Your task to perform on an android device: Open network settings Image 0: 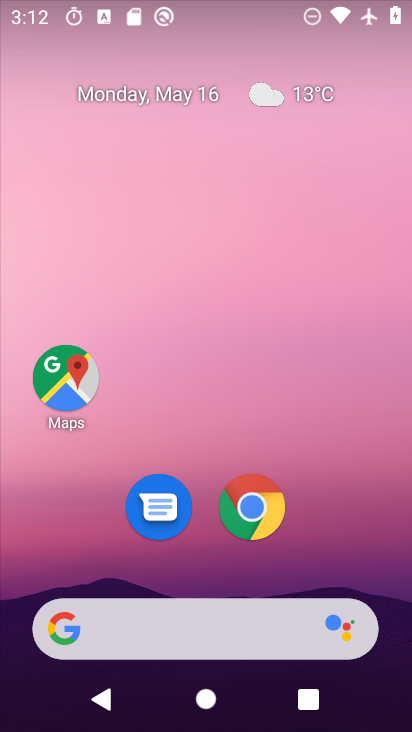
Step 0: drag from (224, 590) to (269, 235)
Your task to perform on an android device: Open network settings Image 1: 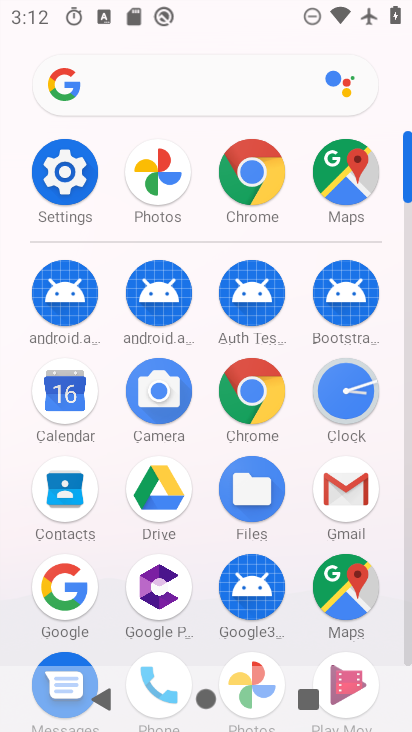
Step 1: click (63, 186)
Your task to perform on an android device: Open network settings Image 2: 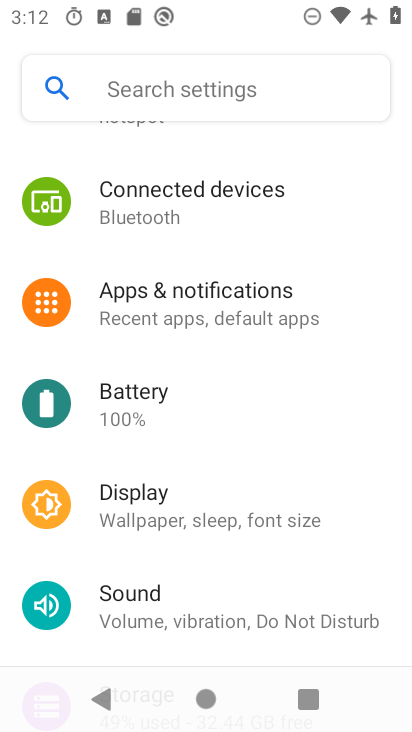
Step 2: drag from (158, 524) to (134, 686)
Your task to perform on an android device: Open network settings Image 3: 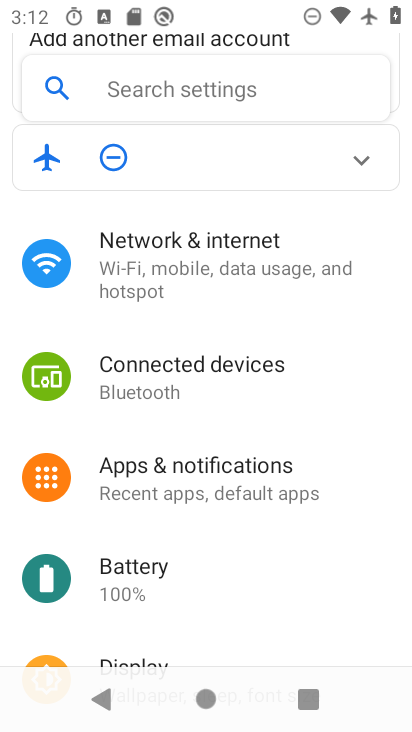
Step 3: click (242, 291)
Your task to perform on an android device: Open network settings Image 4: 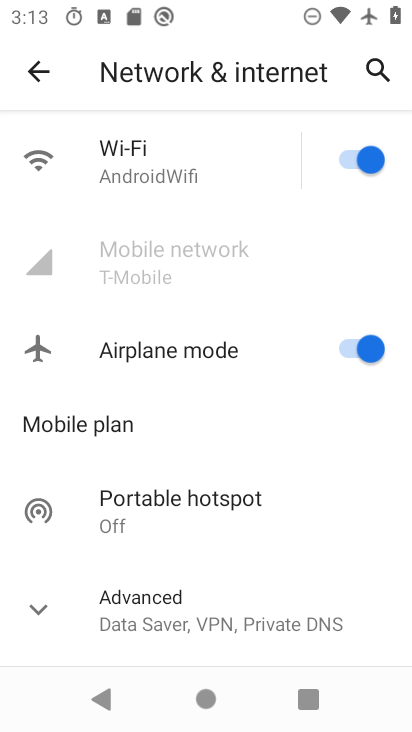
Step 4: task complete